Your task to perform on an android device: change notifications settings Image 0: 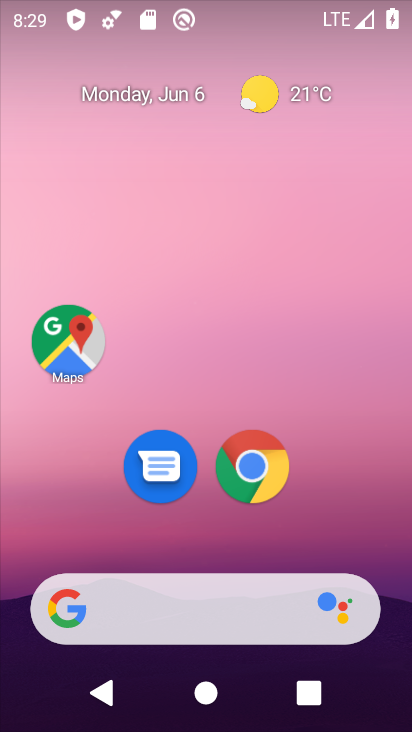
Step 0: drag from (192, 518) to (154, 6)
Your task to perform on an android device: change notifications settings Image 1: 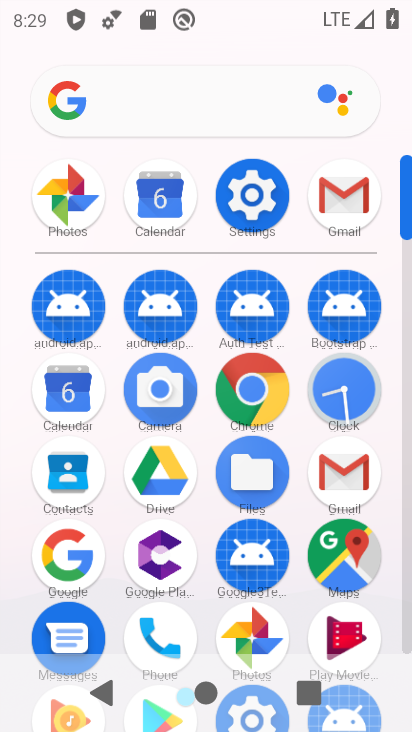
Step 1: click (259, 177)
Your task to perform on an android device: change notifications settings Image 2: 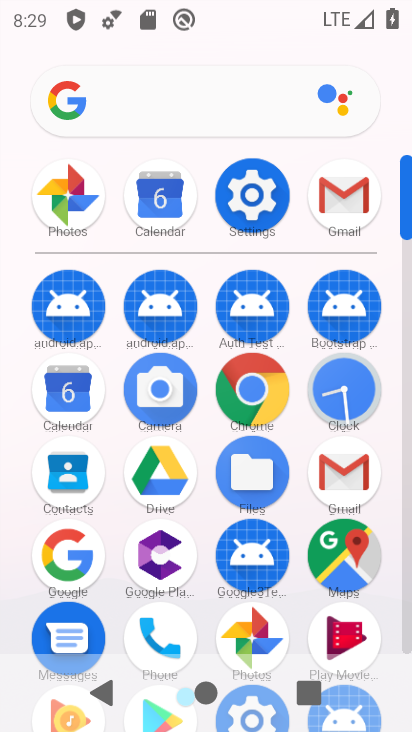
Step 2: click (259, 177)
Your task to perform on an android device: change notifications settings Image 3: 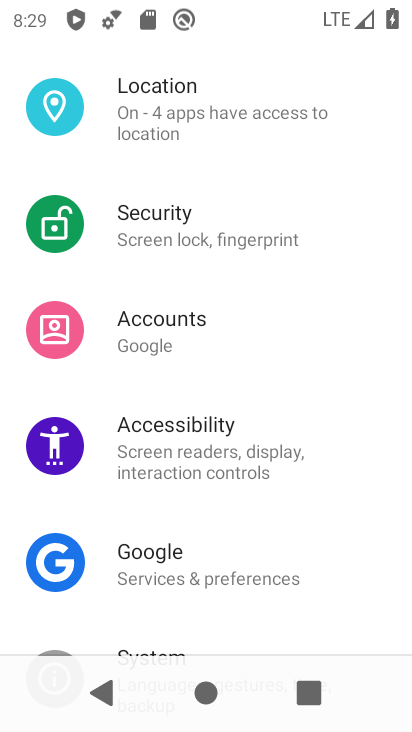
Step 3: drag from (184, 494) to (292, 13)
Your task to perform on an android device: change notifications settings Image 4: 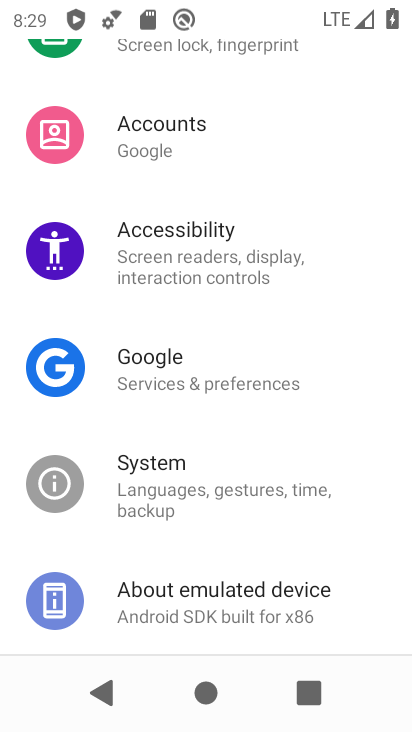
Step 4: drag from (196, 127) to (258, 549)
Your task to perform on an android device: change notifications settings Image 5: 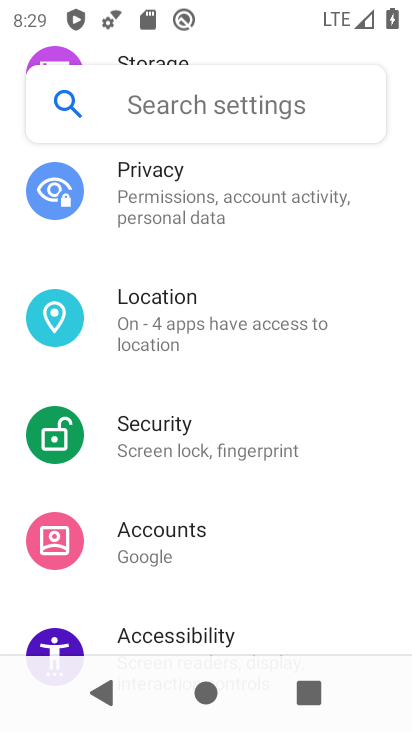
Step 5: drag from (183, 255) to (198, 724)
Your task to perform on an android device: change notifications settings Image 6: 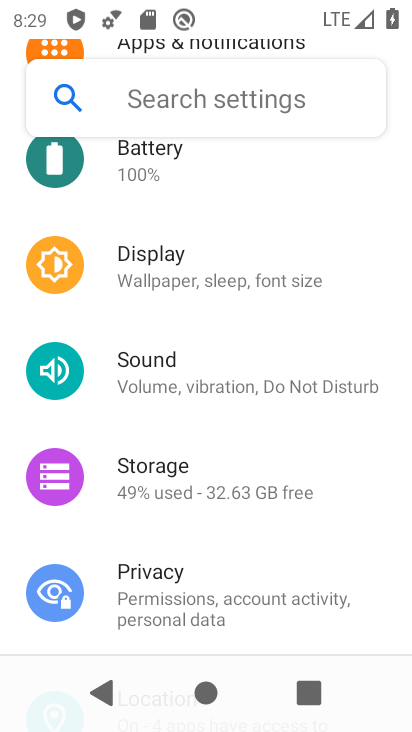
Step 6: drag from (223, 239) to (268, 679)
Your task to perform on an android device: change notifications settings Image 7: 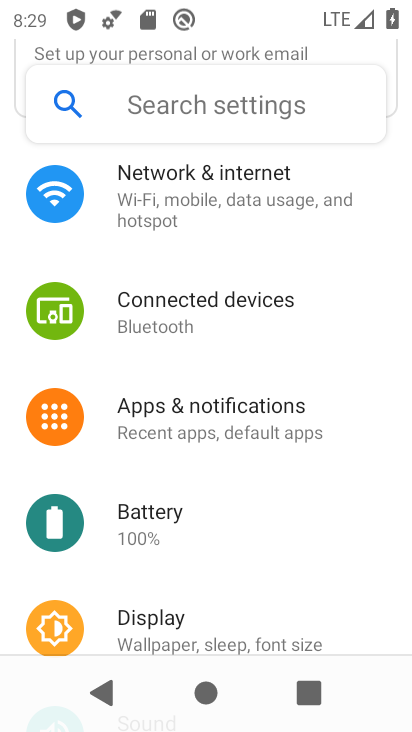
Step 7: click (168, 386)
Your task to perform on an android device: change notifications settings Image 8: 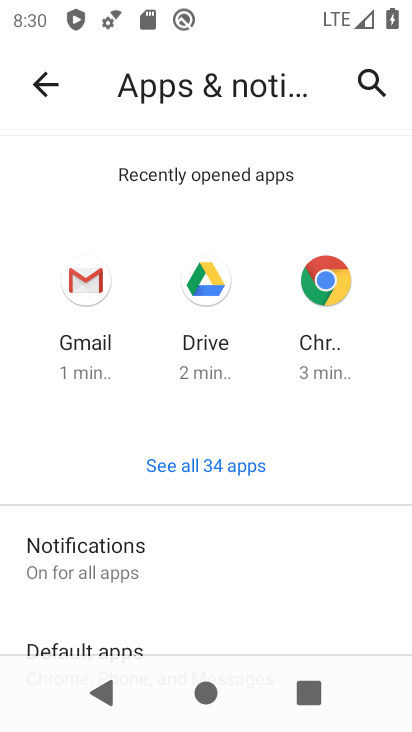
Step 8: drag from (198, 576) to (247, 219)
Your task to perform on an android device: change notifications settings Image 9: 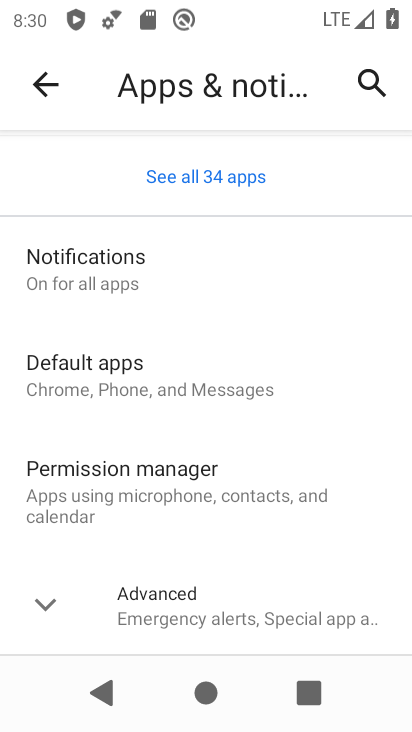
Step 9: click (178, 264)
Your task to perform on an android device: change notifications settings Image 10: 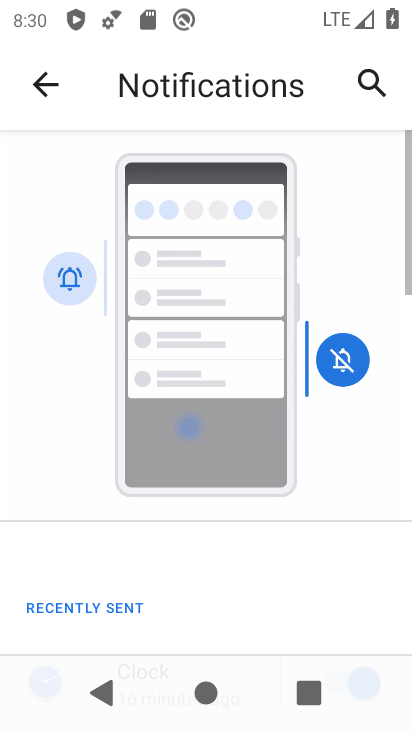
Step 10: drag from (189, 435) to (250, 84)
Your task to perform on an android device: change notifications settings Image 11: 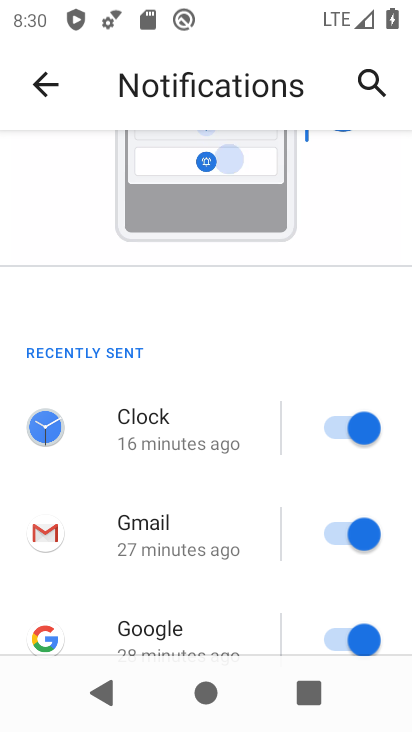
Step 11: drag from (218, 319) to (284, 101)
Your task to perform on an android device: change notifications settings Image 12: 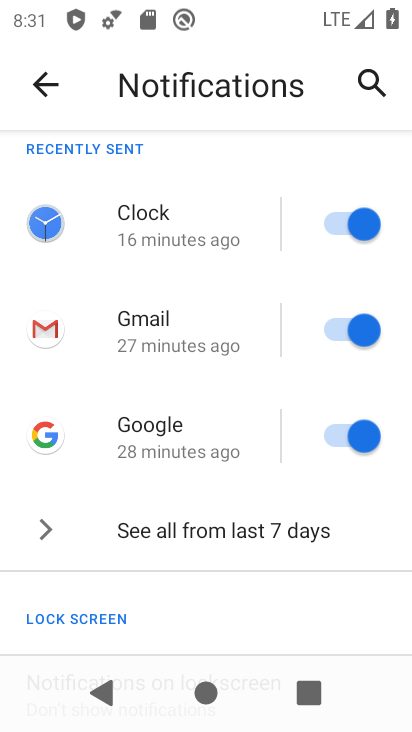
Step 12: drag from (262, 455) to (306, 88)
Your task to perform on an android device: change notifications settings Image 13: 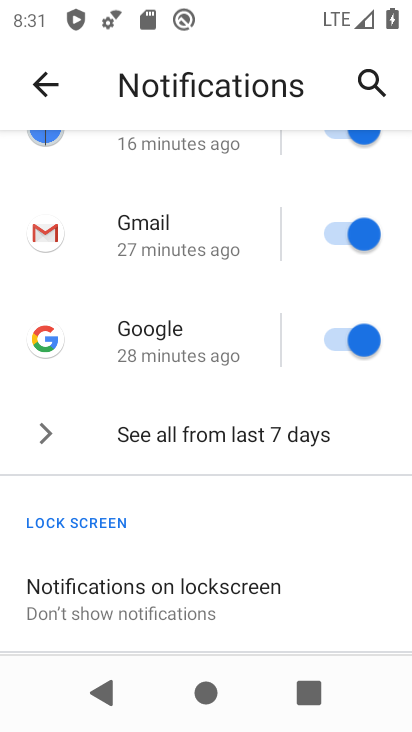
Step 13: click (341, 316)
Your task to perform on an android device: change notifications settings Image 14: 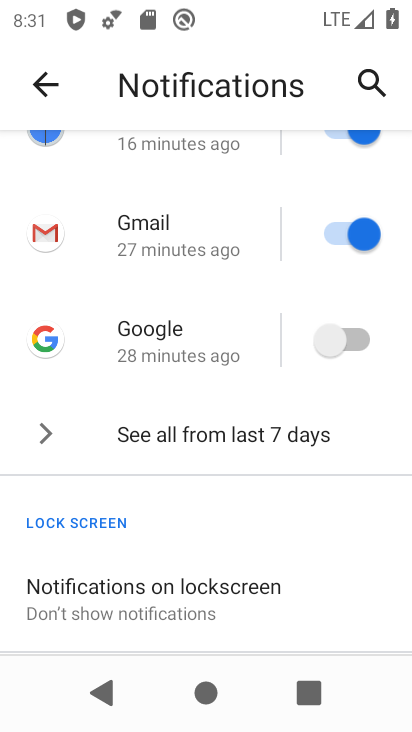
Step 14: task complete